Your task to perform on an android device: star an email in the gmail app Image 0: 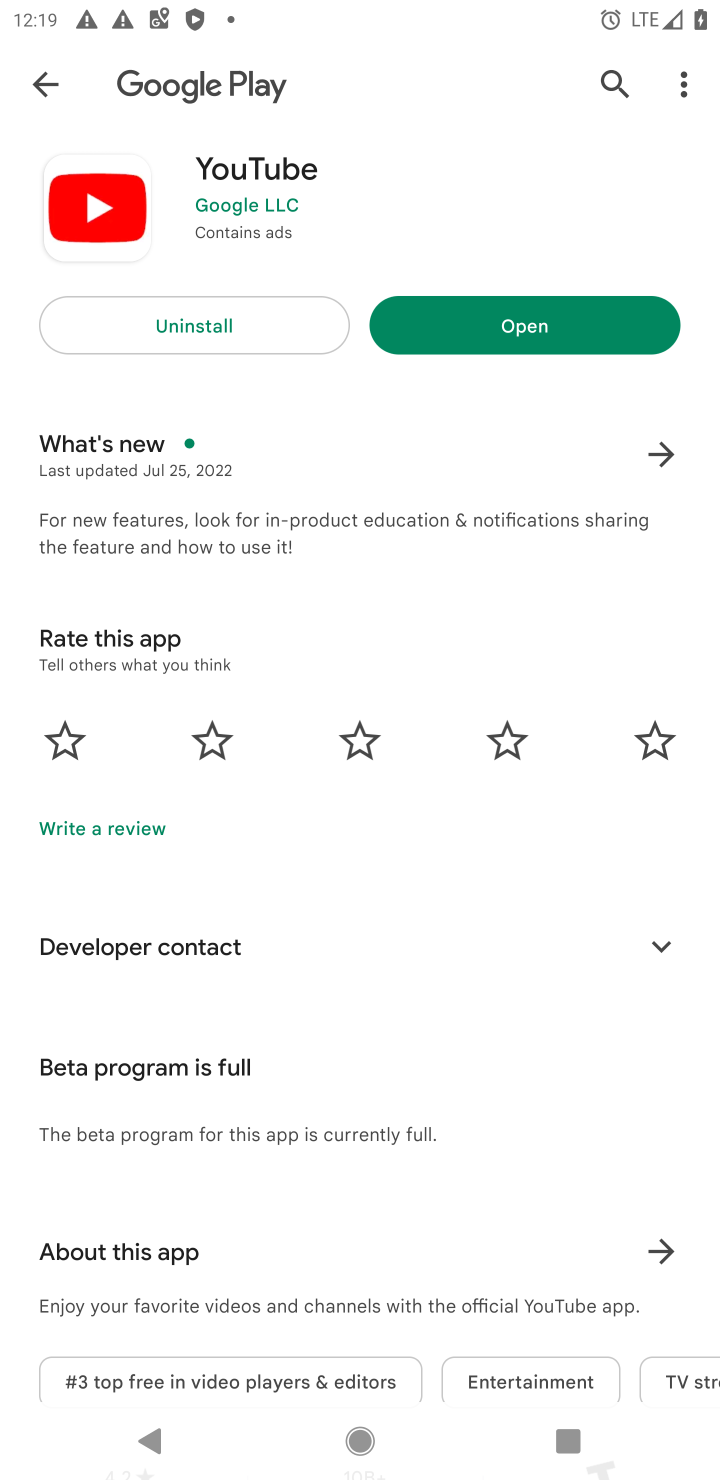
Step 0: press home button
Your task to perform on an android device: star an email in the gmail app Image 1: 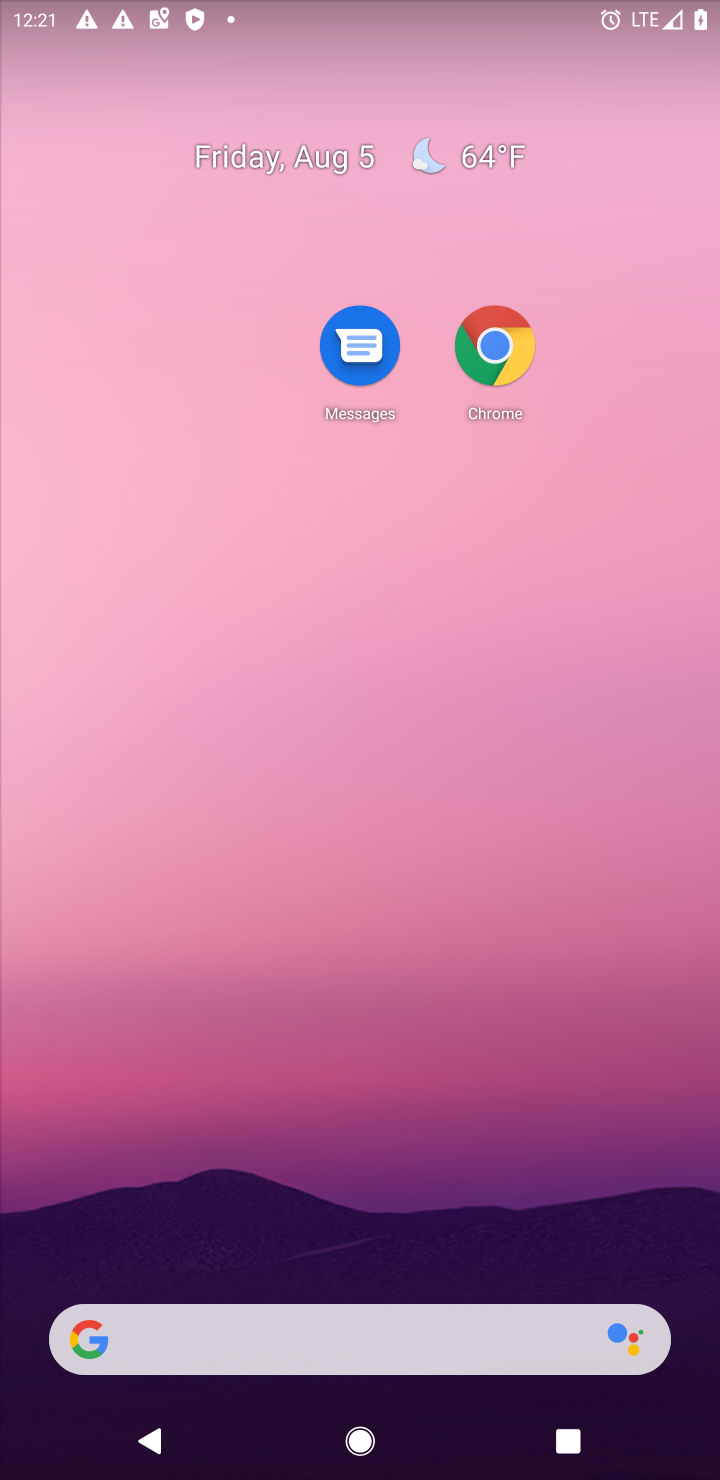
Step 1: drag from (353, 883) to (237, 98)
Your task to perform on an android device: star an email in the gmail app Image 2: 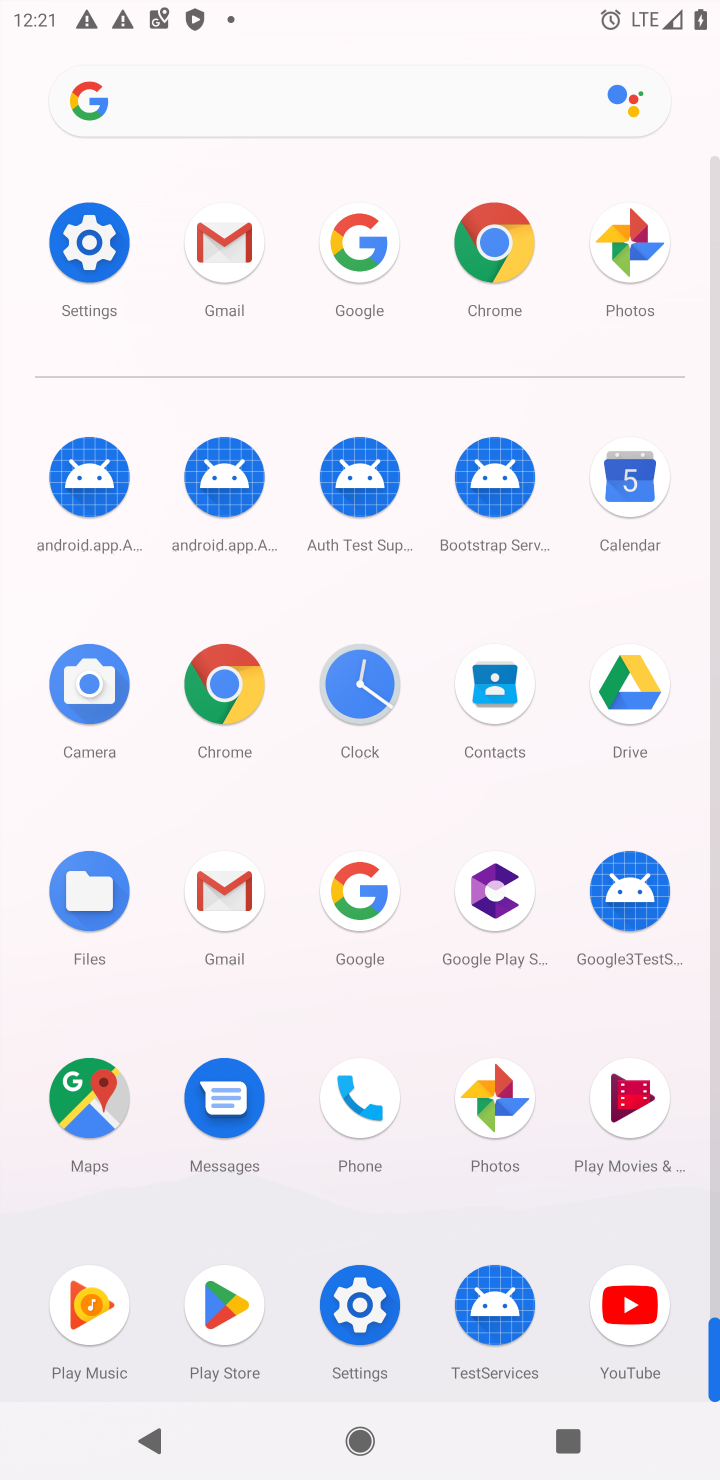
Step 2: click (233, 250)
Your task to perform on an android device: star an email in the gmail app Image 3: 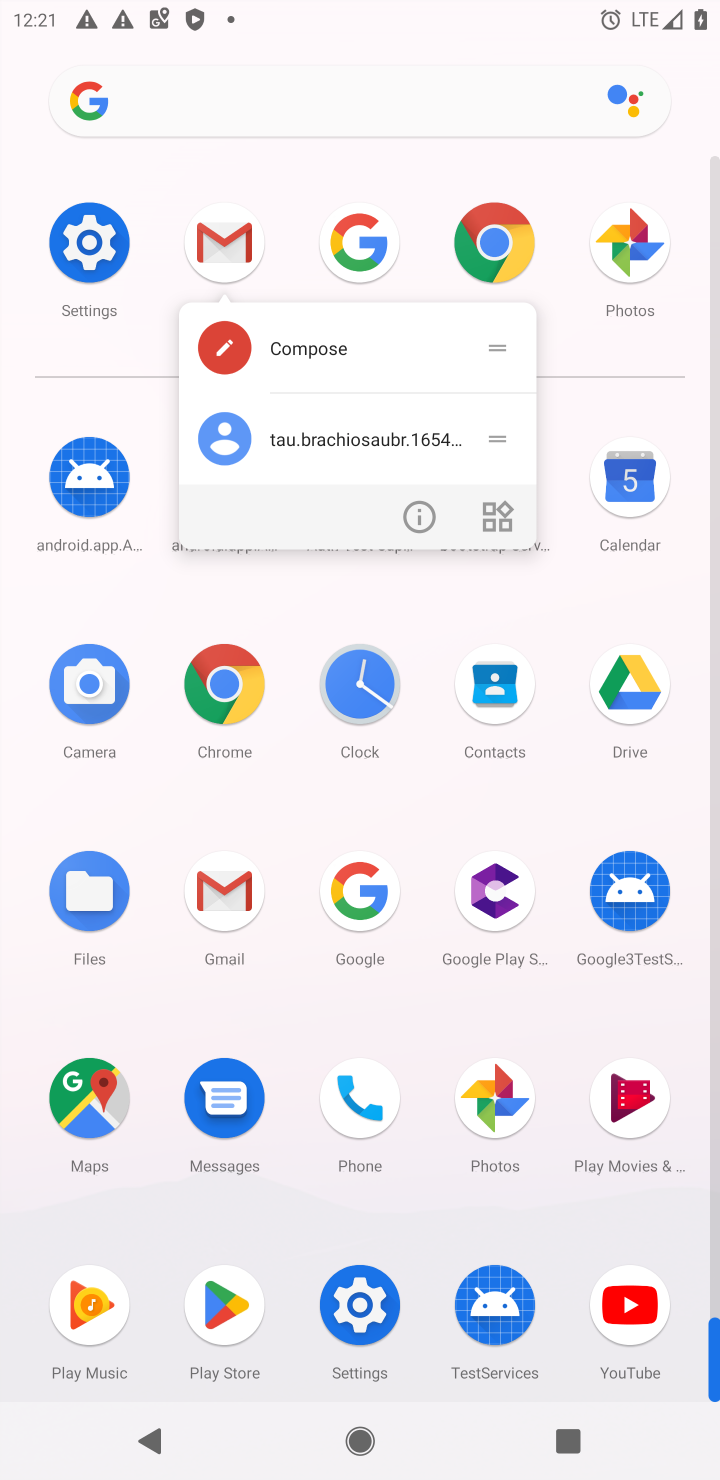
Step 3: click (215, 254)
Your task to perform on an android device: star an email in the gmail app Image 4: 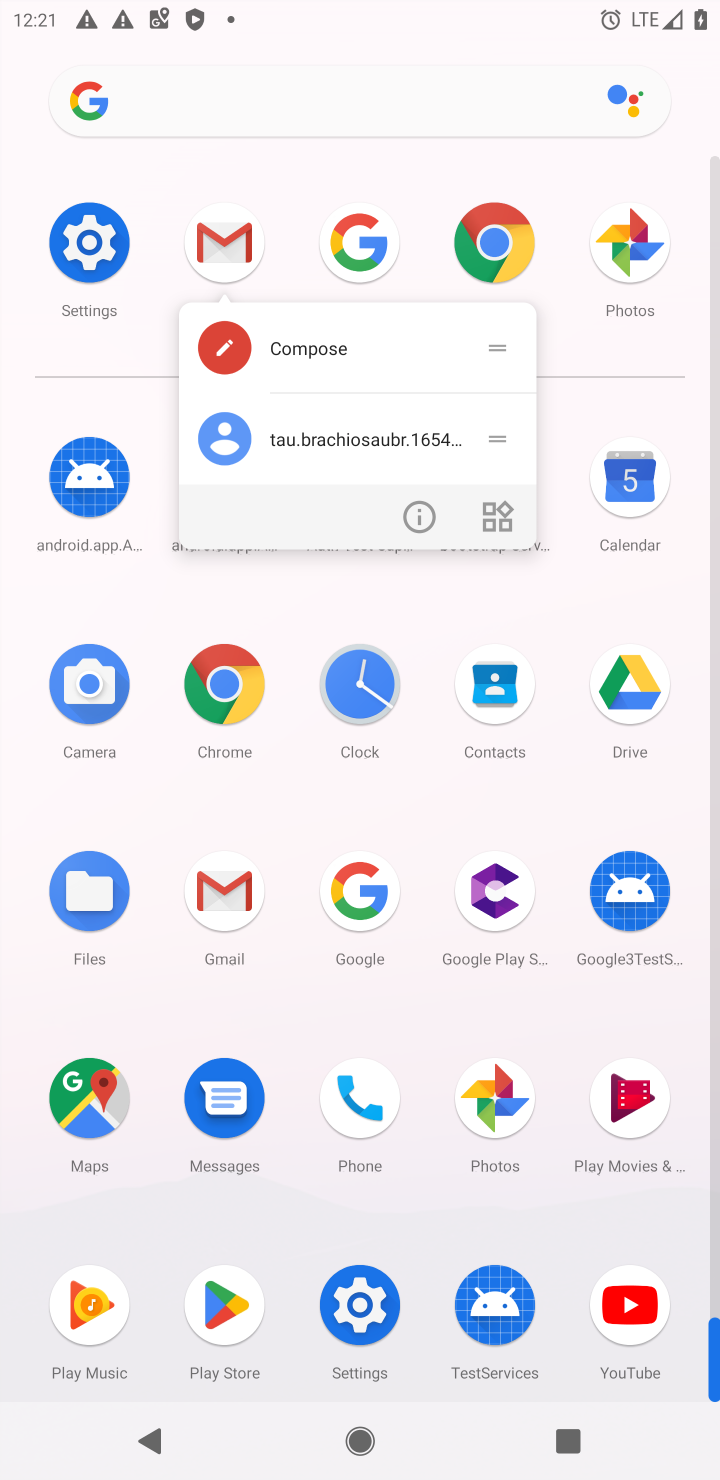
Step 4: click (228, 261)
Your task to perform on an android device: star an email in the gmail app Image 5: 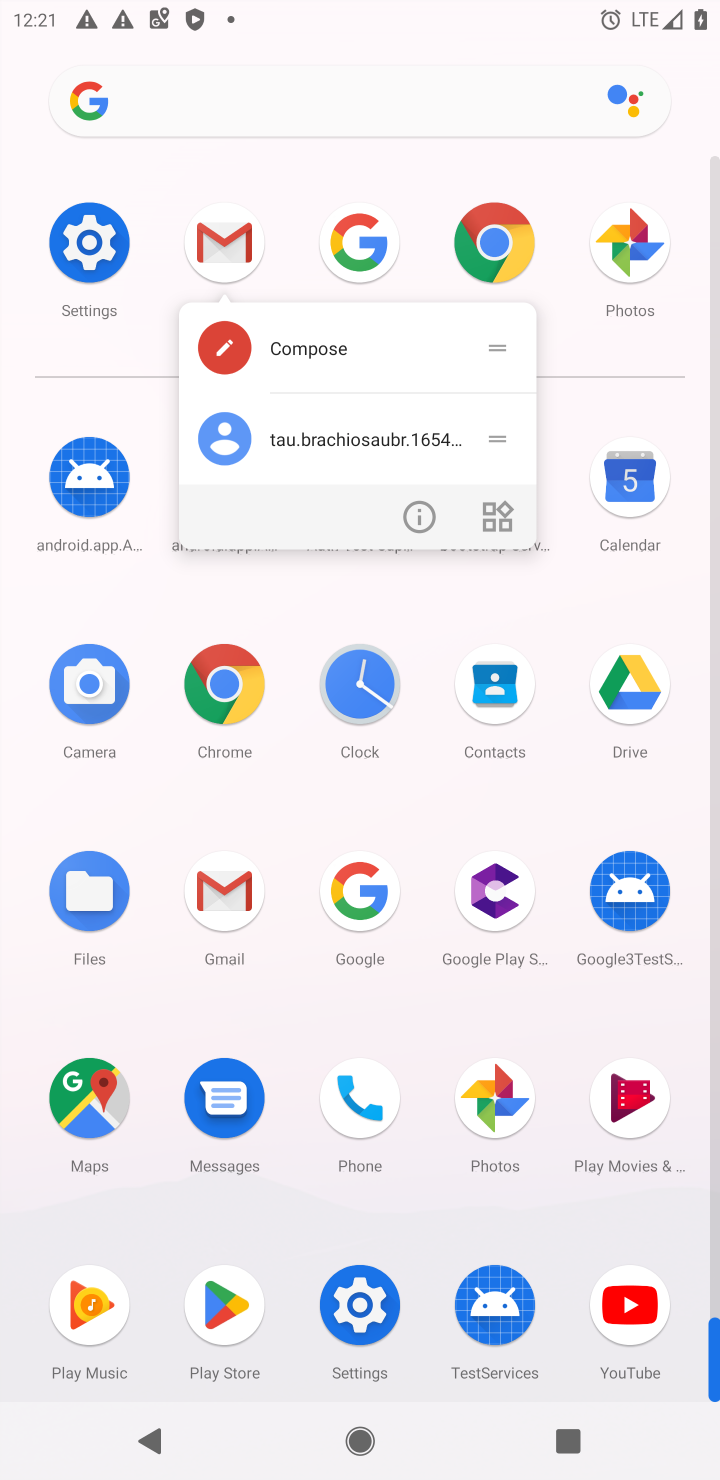
Step 5: click (236, 250)
Your task to perform on an android device: star an email in the gmail app Image 6: 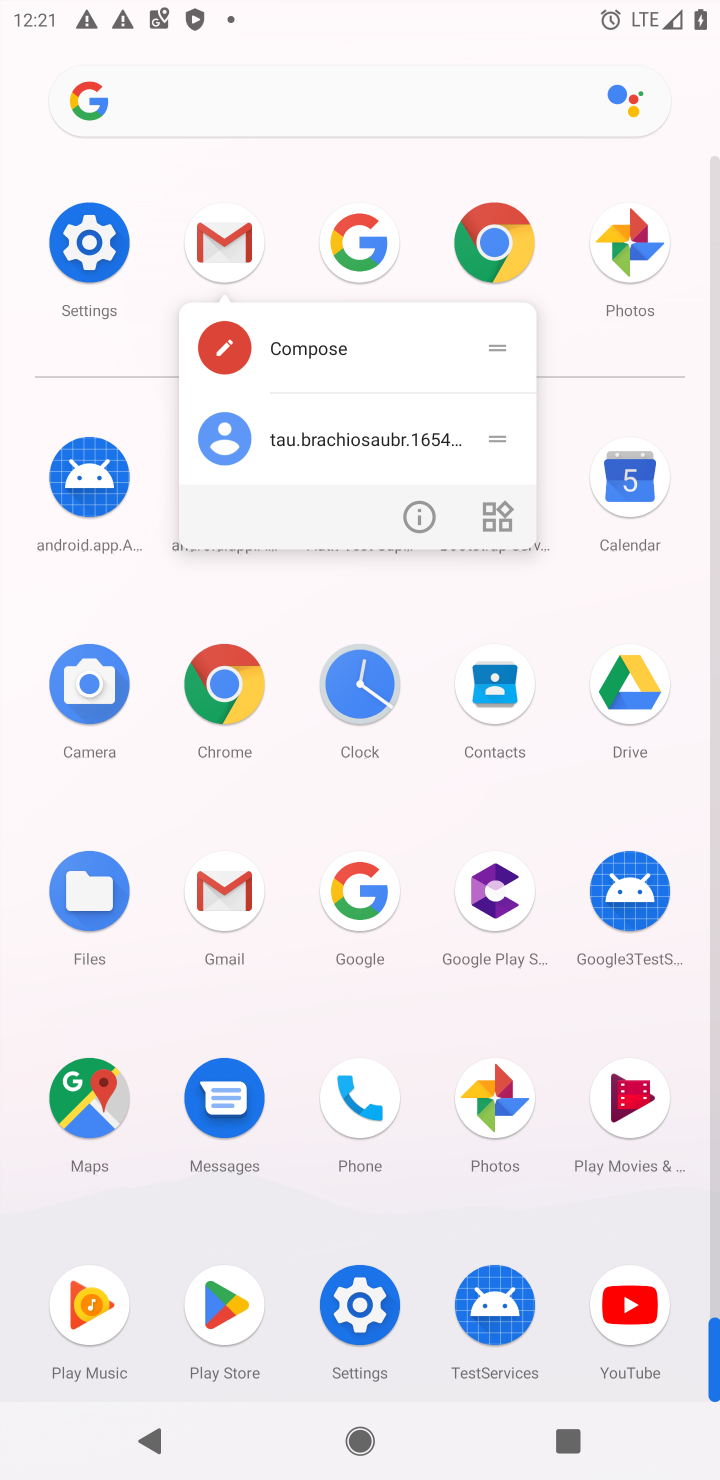
Step 6: click (236, 249)
Your task to perform on an android device: star an email in the gmail app Image 7: 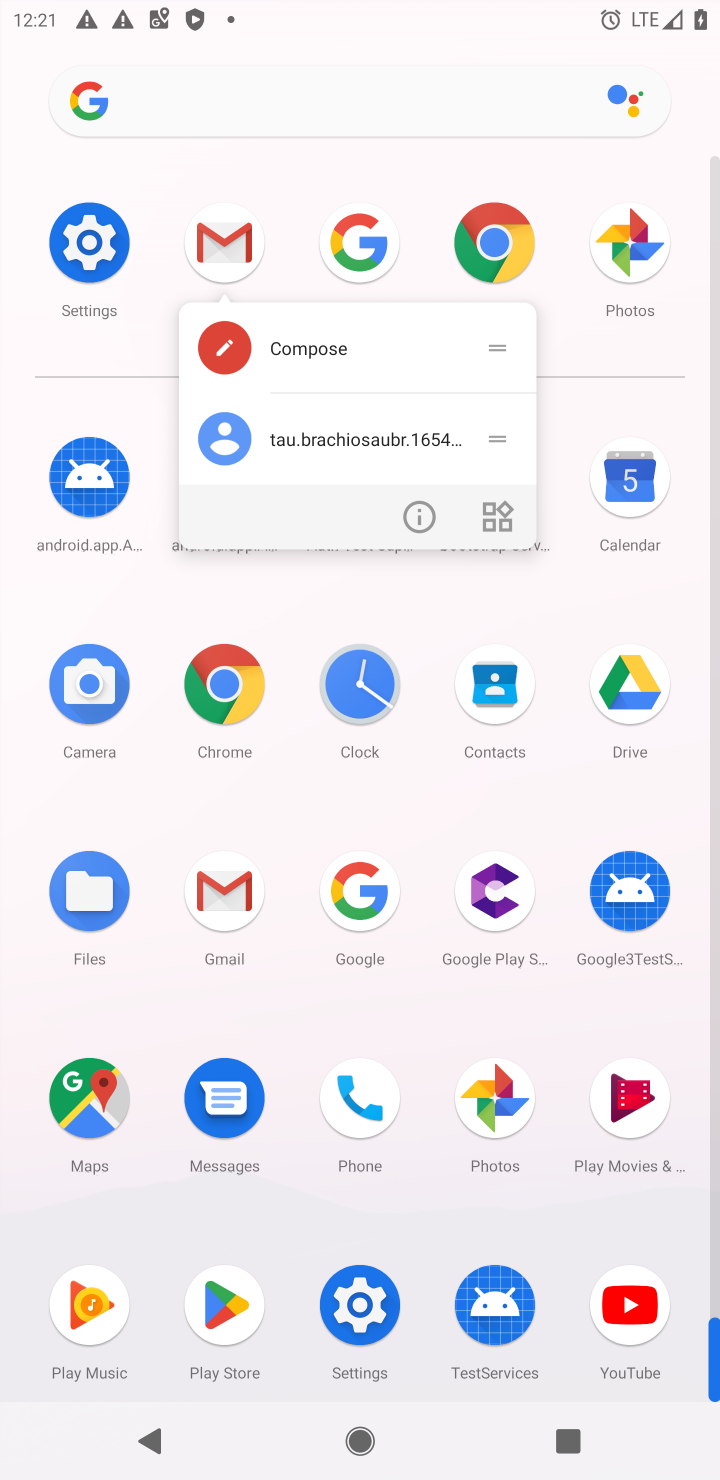
Step 7: click (236, 256)
Your task to perform on an android device: star an email in the gmail app Image 8: 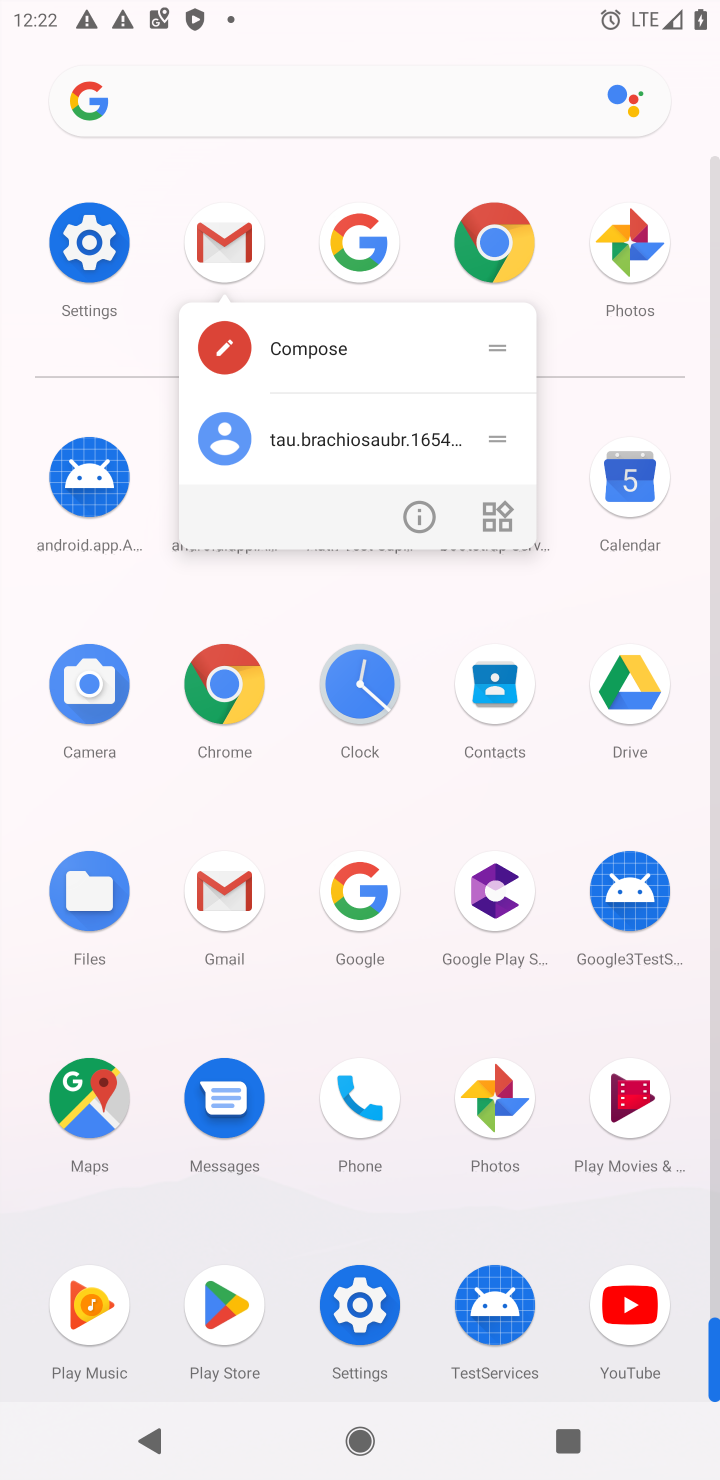
Step 8: click (216, 249)
Your task to perform on an android device: star an email in the gmail app Image 9: 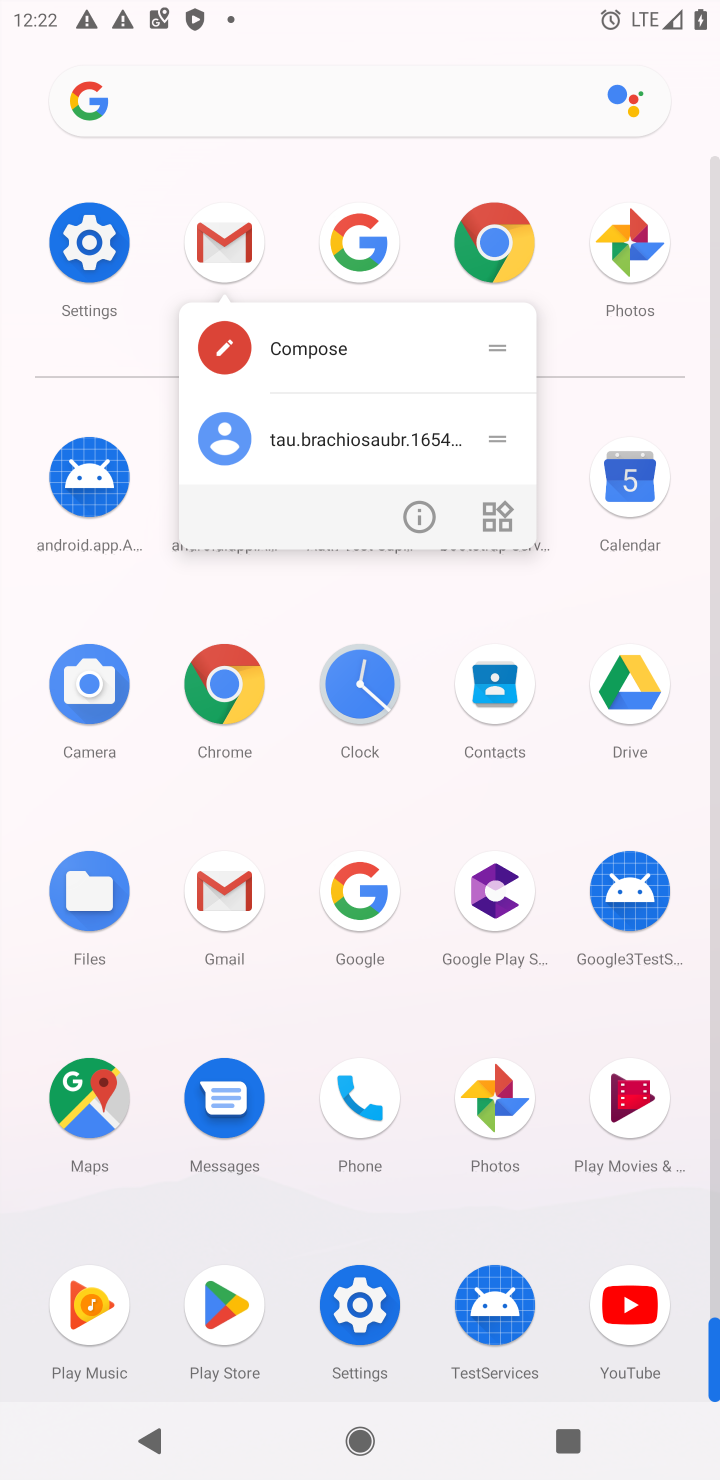
Step 9: click (216, 247)
Your task to perform on an android device: star an email in the gmail app Image 10: 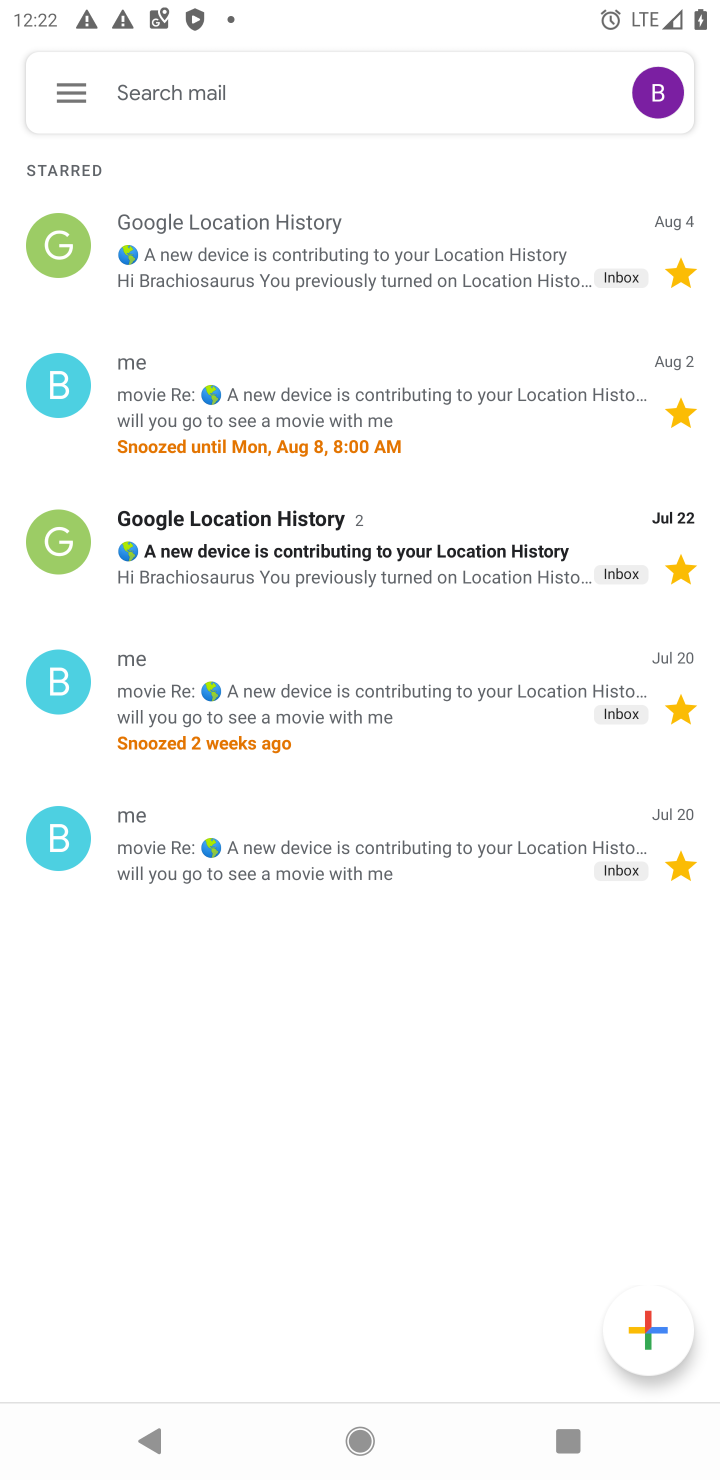
Step 10: click (61, 105)
Your task to perform on an android device: star an email in the gmail app Image 11: 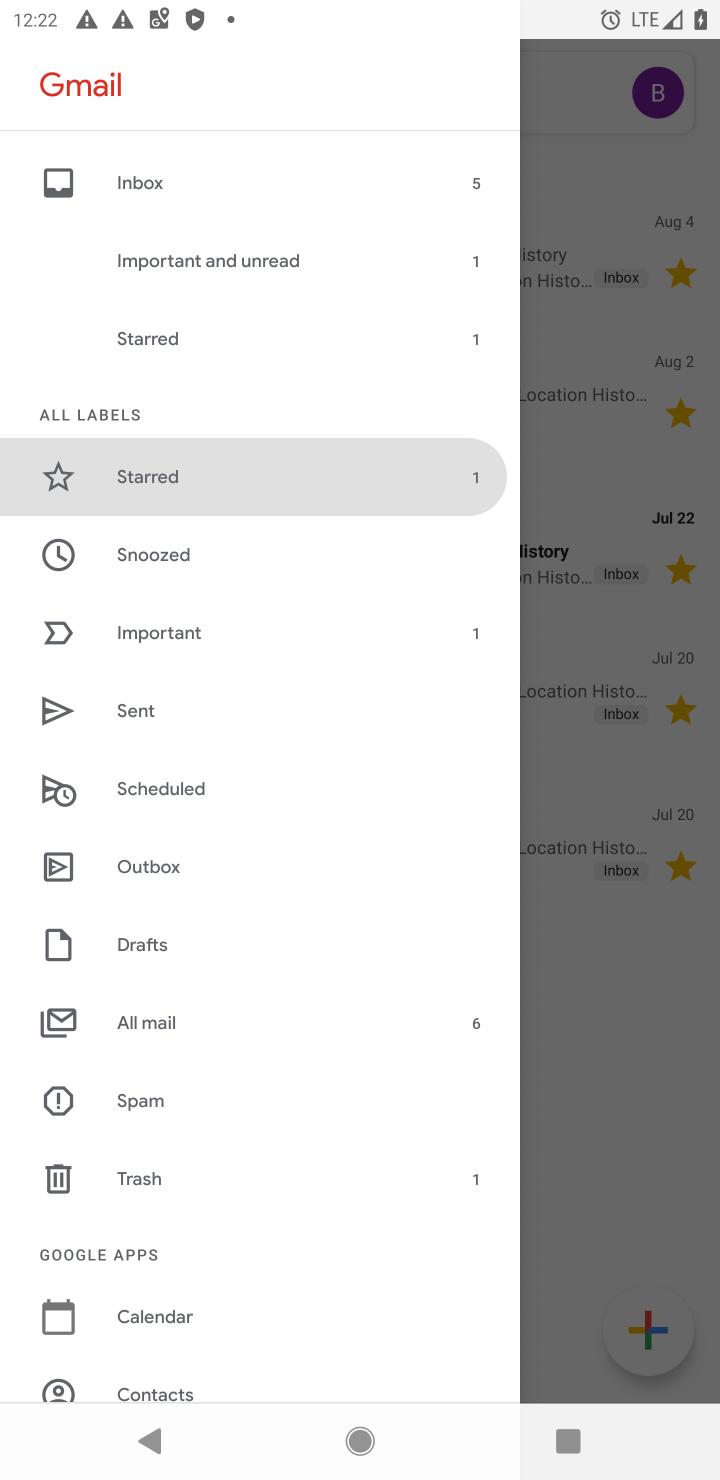
Step 11: click (136, 175)
Your task to perform on an android device: star an email in the gmail app Image 12: 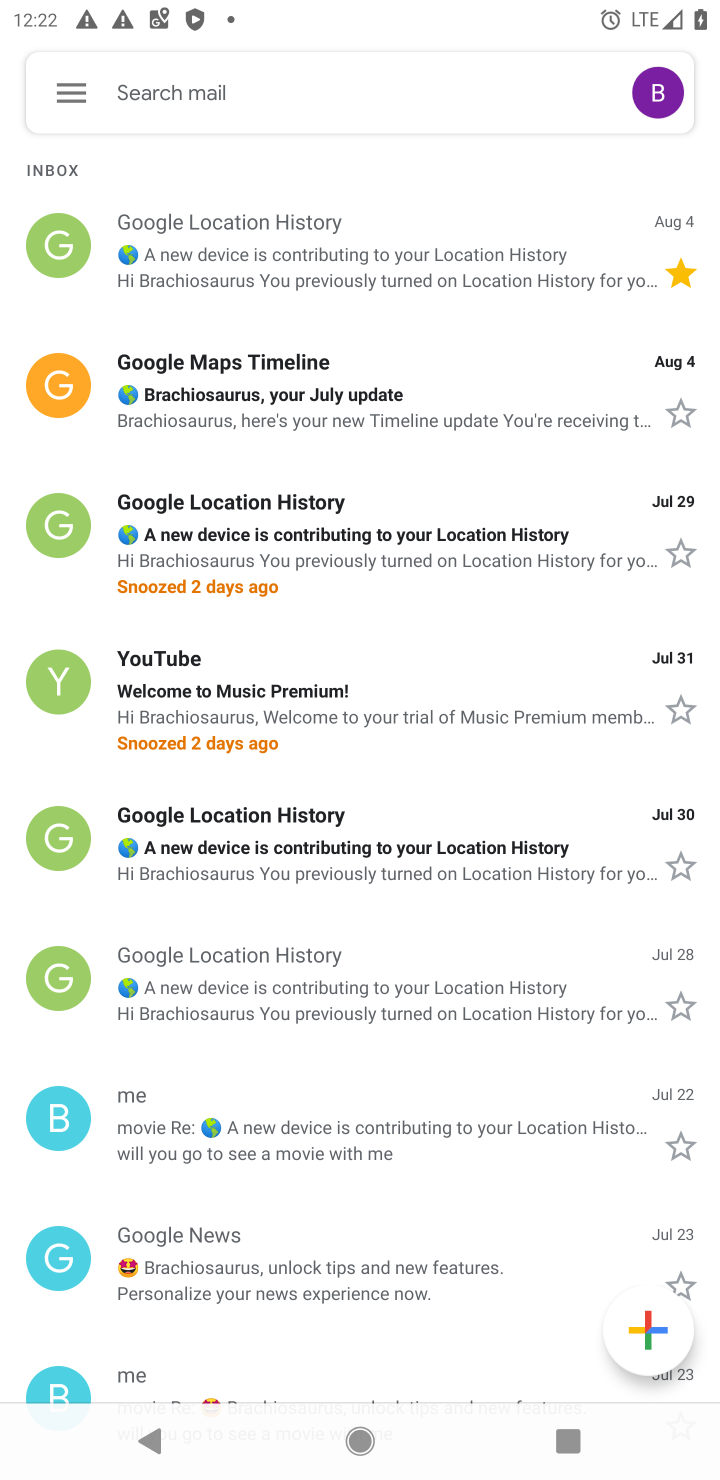
Step 12: click (669, 446)
Your task to perform on an android device: star an email in the gmail app Image 13: 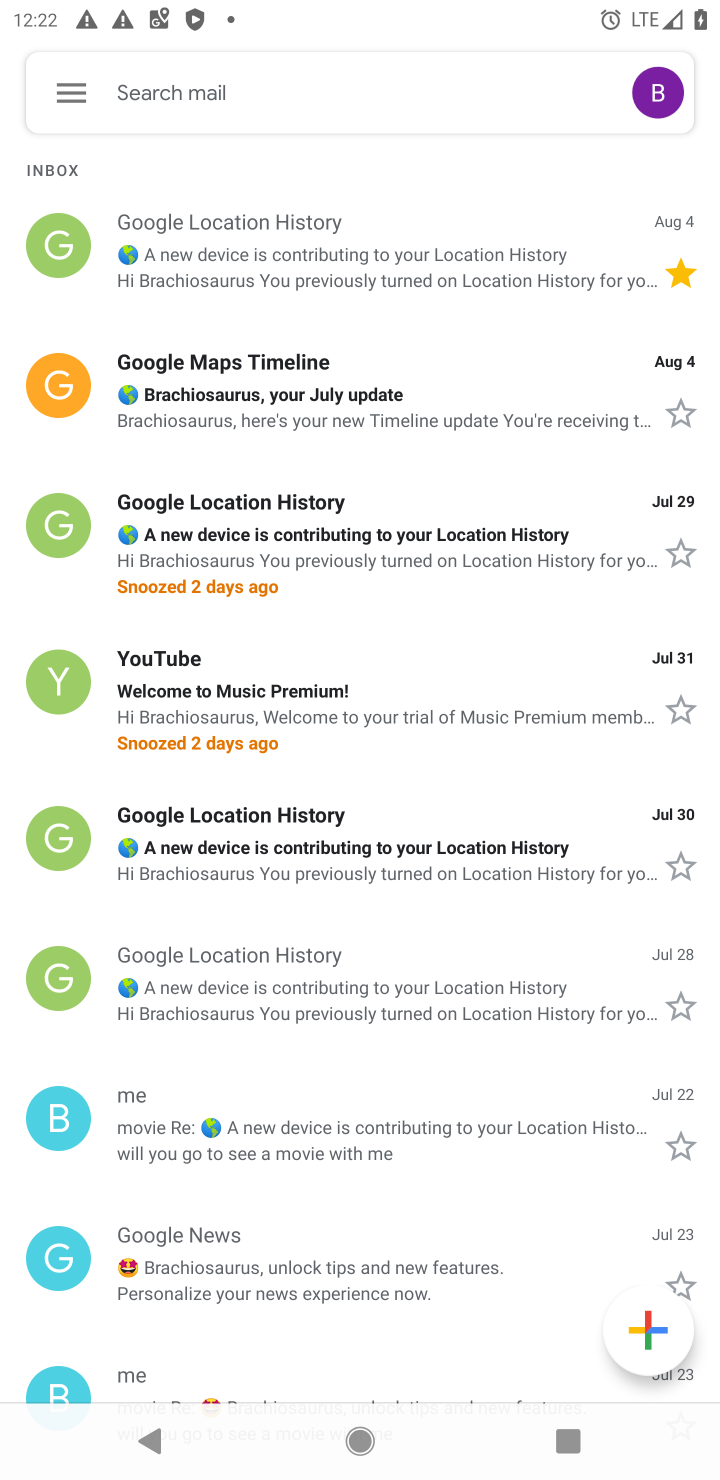
Step 13: click (681, 419)
Your task to perform on an android device: star an email in the gmail app Image 14: 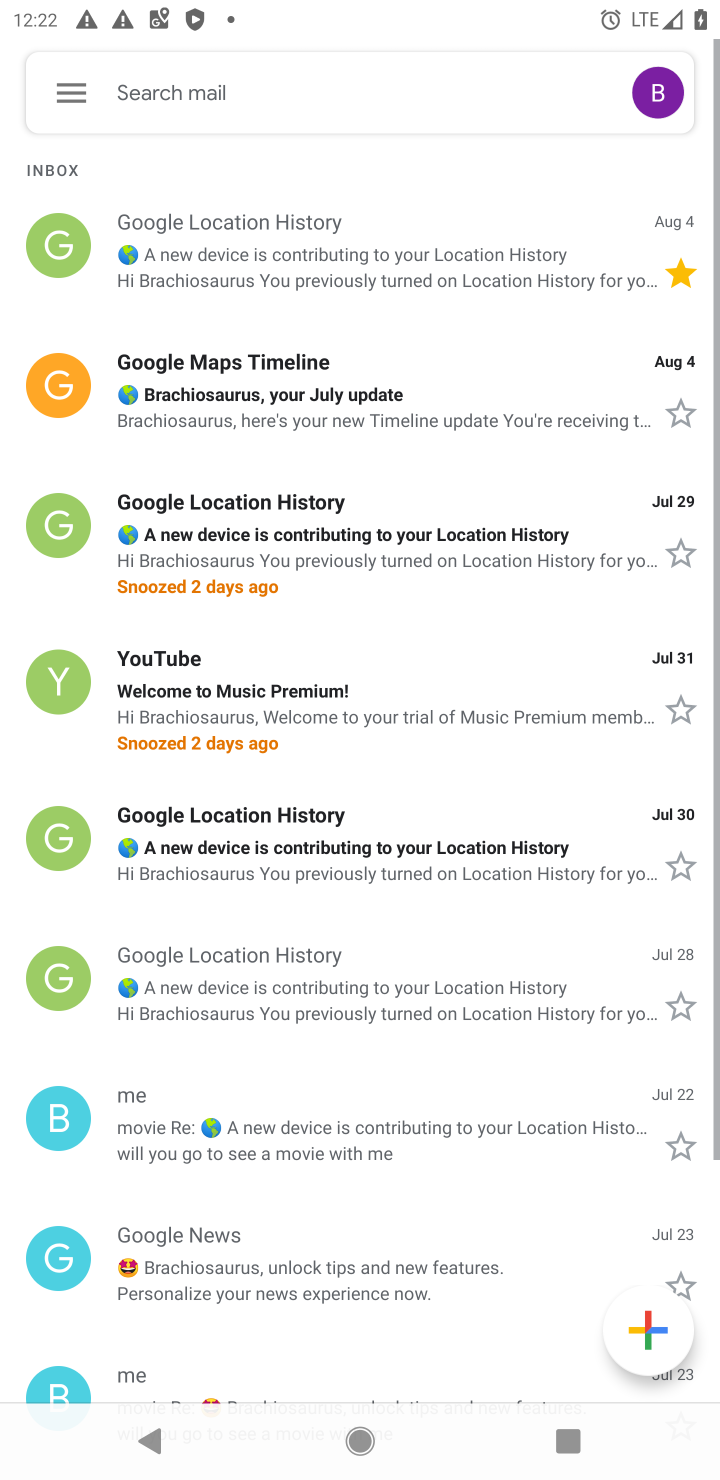
Step 14: task complete